Your task to perform on an android device: Turn on the flashlight Image 0: 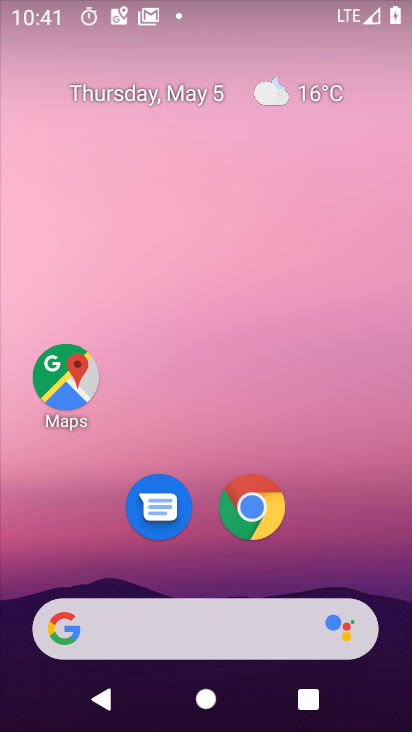
Step 0: drag from (211, 583) to (280, 81)
Your task to perform on an android device: Turn on the flashlight Image 1: 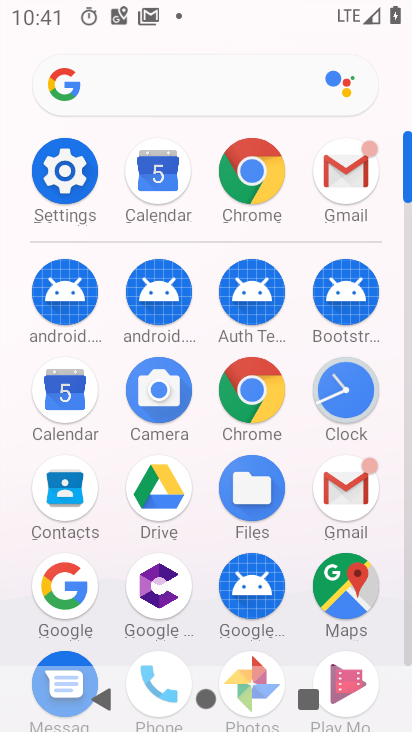
Step 1: click (67, 178)
Your task to perform on an android device: Turn on the flashlight Image 2: 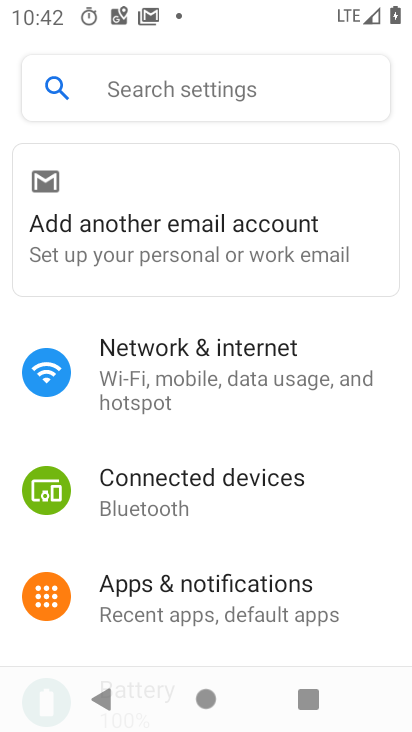
Step 2: drag from (202, 549) to (248, 237)
Your task to perform on an android device: Turn on the flashlight Image 3: 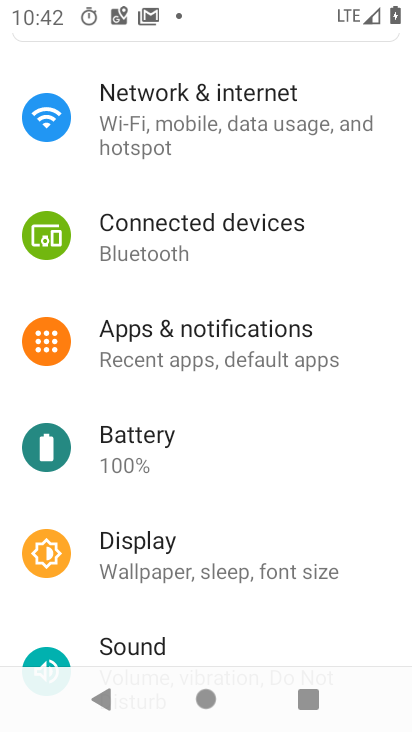
Step 3: drag from (212, 521) to (223, 400)
Your task to perform on an android device: Turn on the flashlight Image 4: 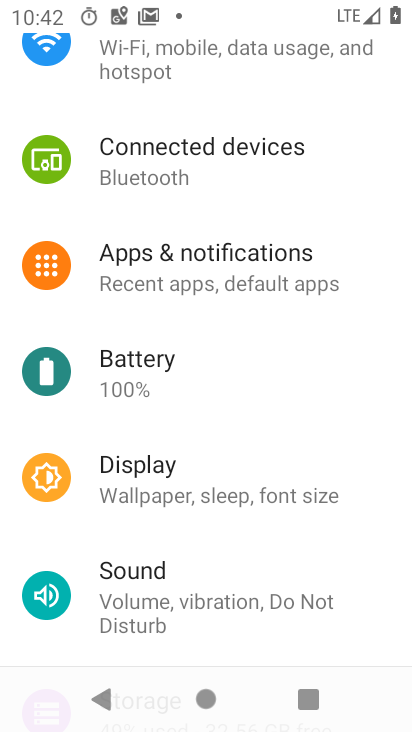
Step 4: drag from (181, 208) to (208, 458)
Your task to perform on an android device: Turn on the flashlight Image 5: 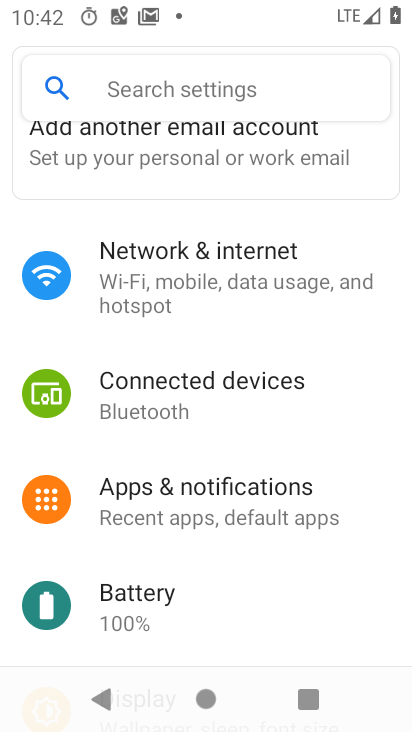
Step 5: drag from (179, 579) to (232, 260)
Your task to perform on an android device: Turn on the flashlight Image 6: 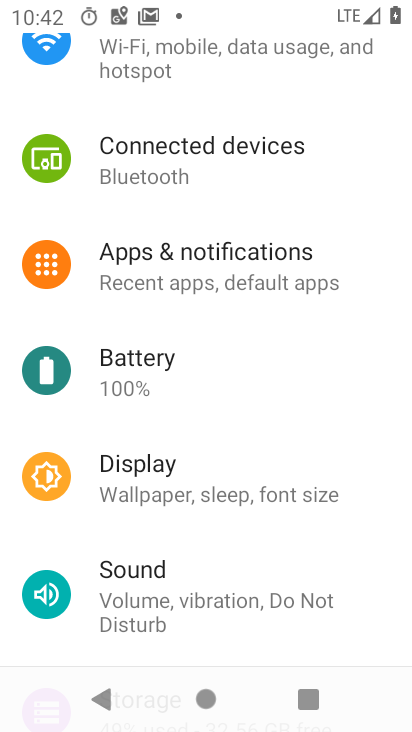
Step 6: click (222, 489)
Your task to perform on an android device: Turn on the flashlight Image 7: 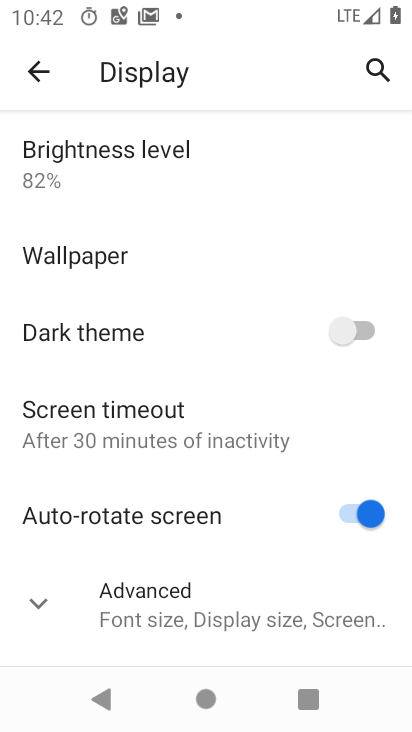
Step 7: task complete